Your task to perform on an android device: Open Reddit.com Image 0: 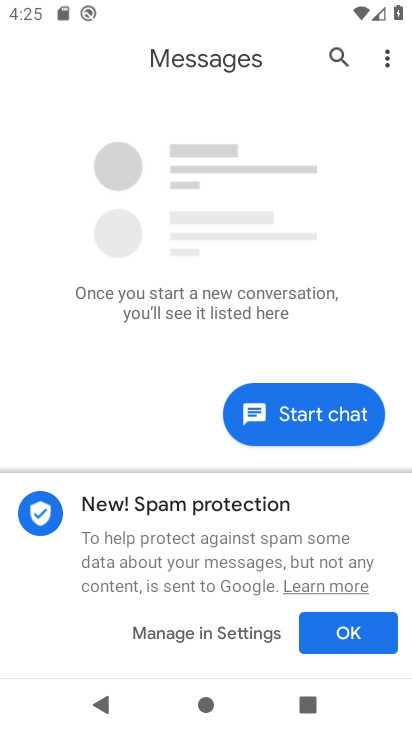
Step 0: press home button
Your task to perform on an android device: Open Reddit.com Image 1: 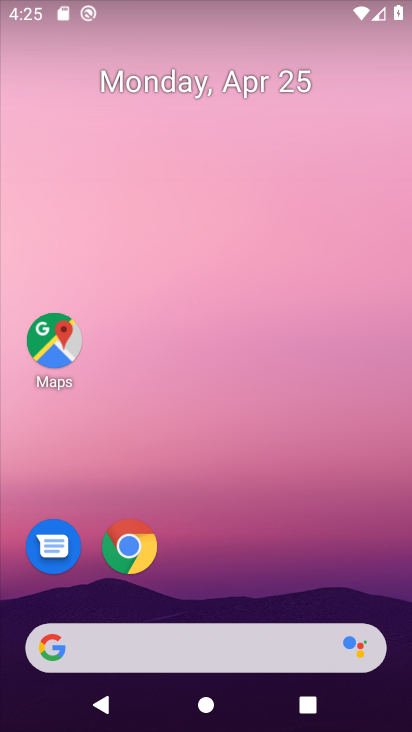
Step 1: click (142, 531)
Your task to perform on an android device: Open Reddit.com Image 2: 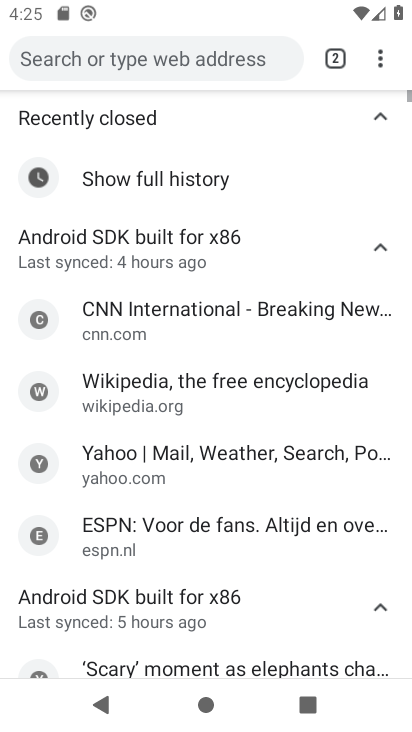
Step 2: click (191, 69)
Your task to perform on an android device: Open Reddit.com Image 3: 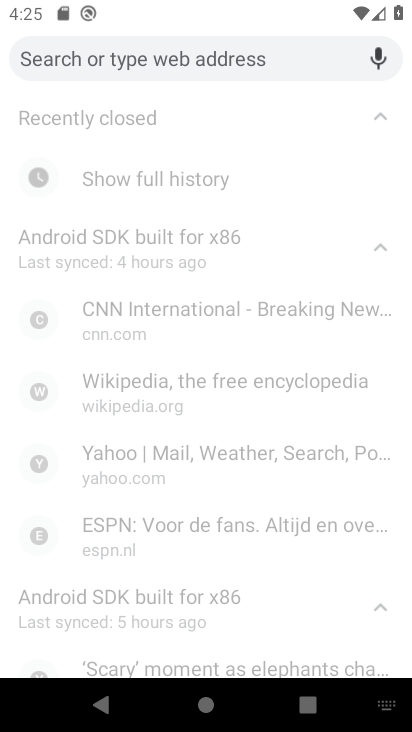
Step 3: type "Reddit.com"
Your task to perform on an android device: Open Reddit.com Image 4: 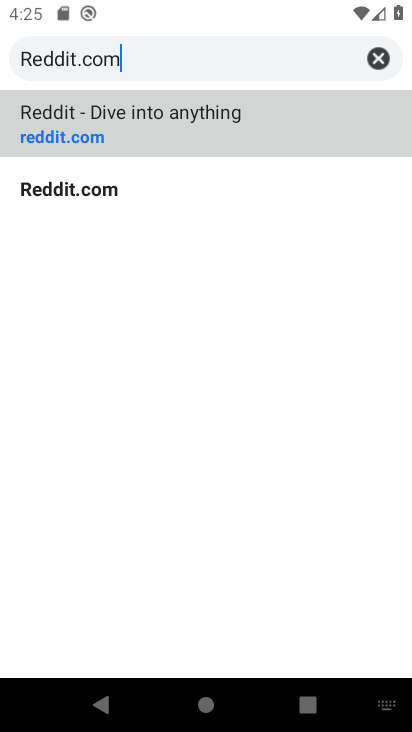
Step 4: click (38, 125)
Your task to perform on an android device: Open Reddit.com Image 5: 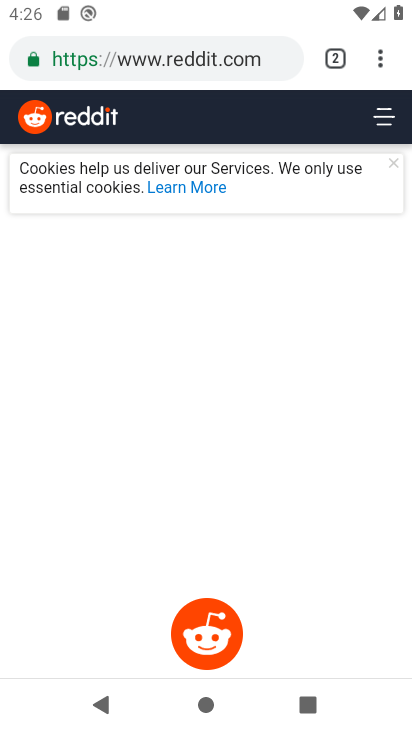
Step 5: task complete